Your task to perform on an android device: Open the web browser Image 0: 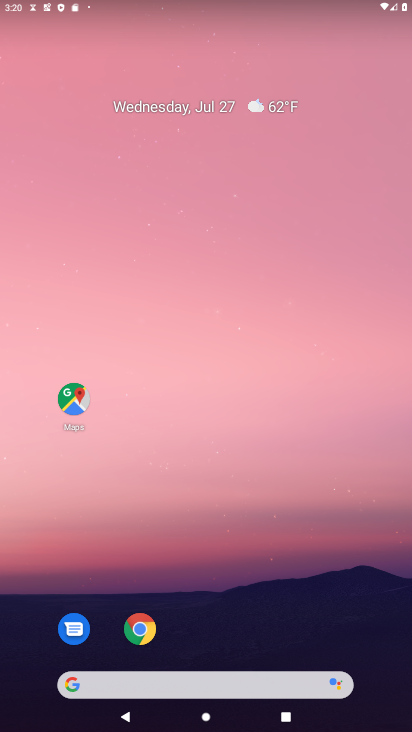
Step 0: click (139, 629)
Your task to perform on an android device: Open the web browser Image 1: 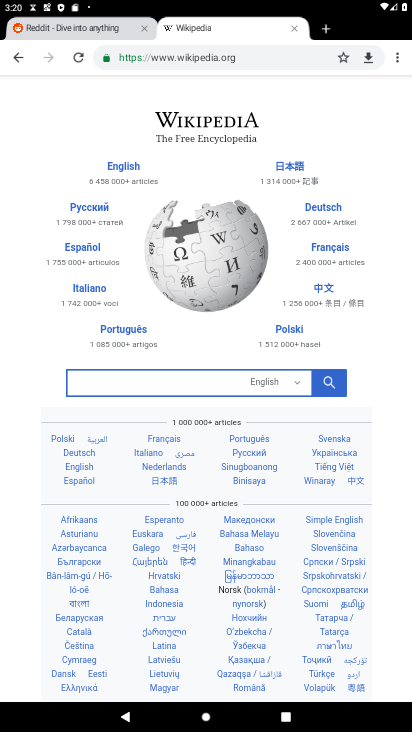
Step 1: task complete